Your task to perform on an android device: Find coffee shops on Maps Image 0: 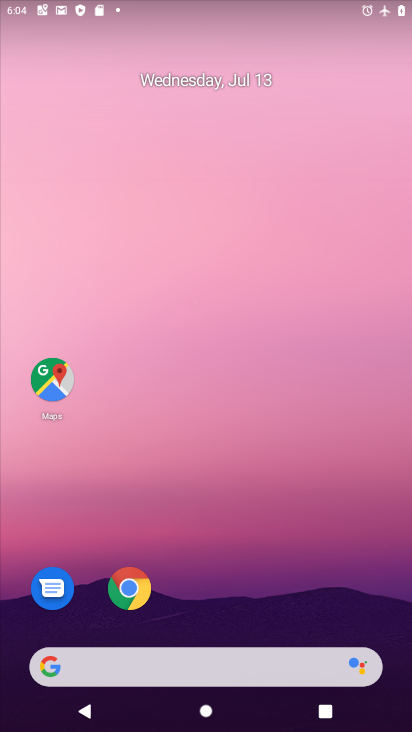
Step 0: click (51, 375)
Your task to perform on an android device: Find coffee shops on Maps Image 1: 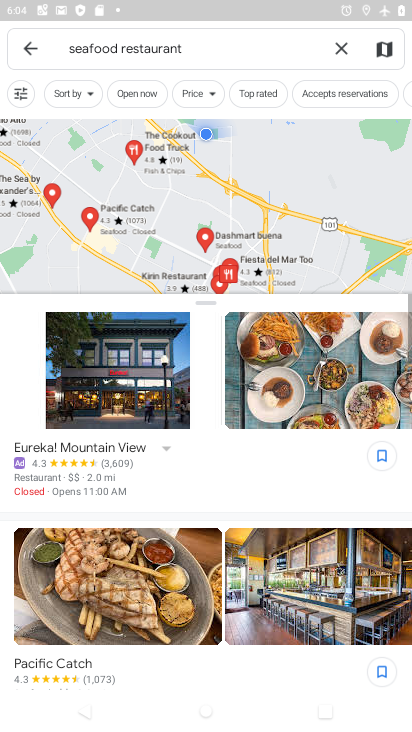
Step 1: click (343, 49)
Your task to perform on an android device: Find coffee shops on Maps Image 2: 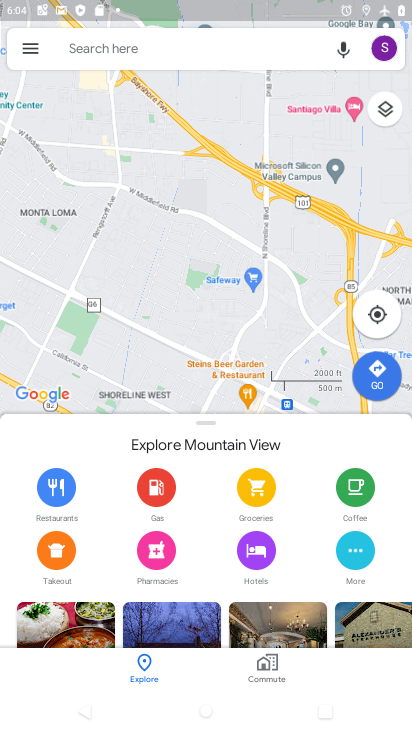
Step 2: click (174, 43)
Your task to perform on an android device: Find coffee shops on Maps Image 3: 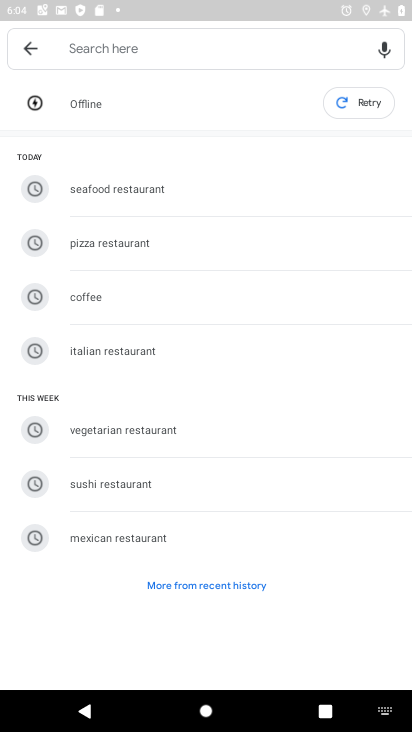
Step 3: type "coffee shops"
Your task to perform on an android device: Find coffee shops on Maps Image 4: 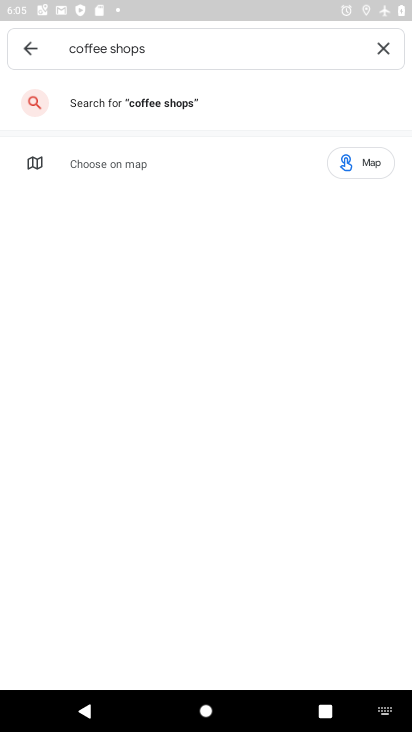
Step 4: press back button
Your task to perform on an android device: Find coffee shops on Maps Image 5: 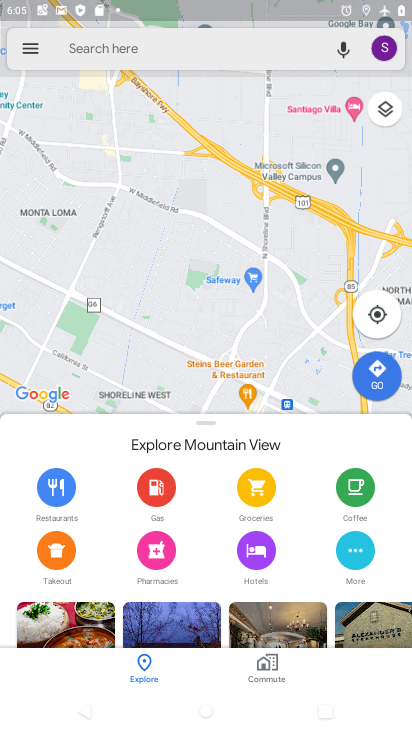
Step 5: click (204, 40)
Your task to perform on an android device: Find coffee shops on Maps Image 6: 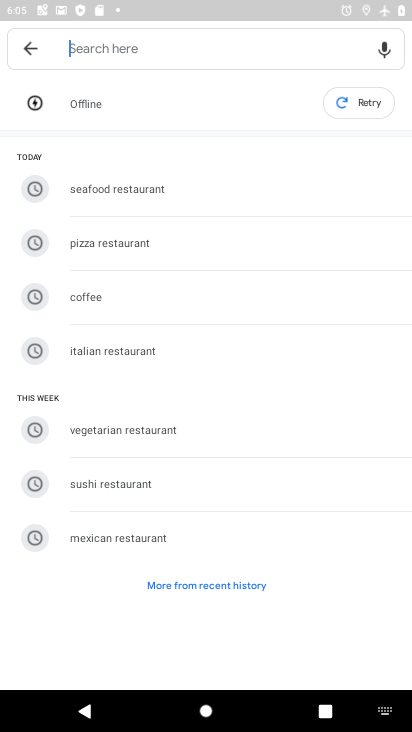
Step 6: type "coffee shops"
Your task to perform on an android device: Find coffee shops on Maps Image 7: 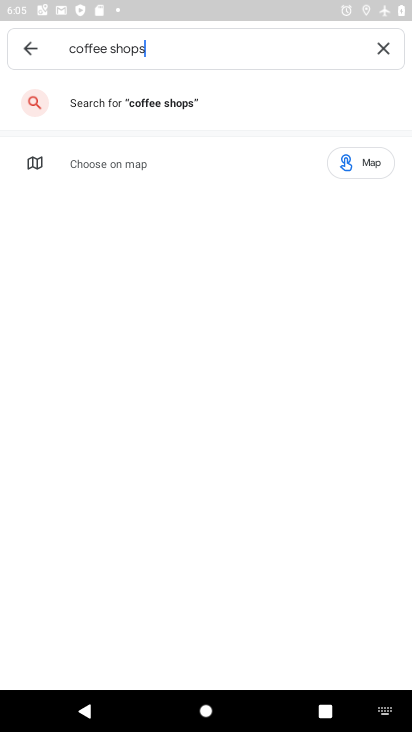
Step 7: press back button
Your task to perform on an android device: Find coffee shops on Maps Image 8: 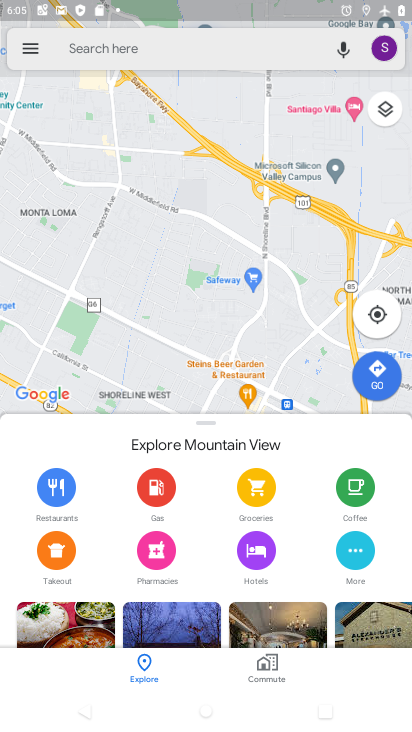
Step 8: press back button
Your task to perform on an android device: Find coffee shops on Maps Image 9: 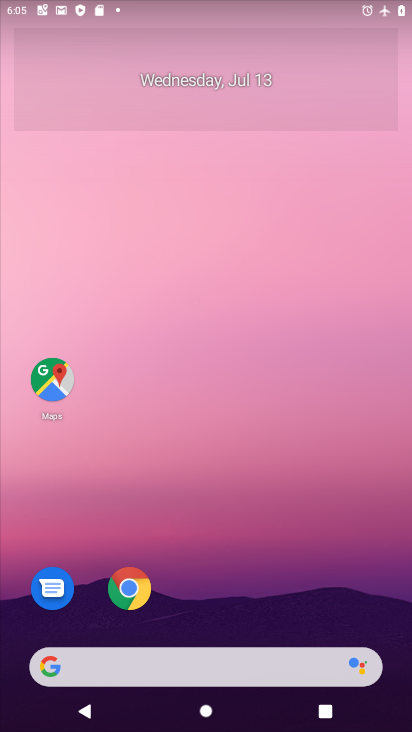
Step 9: drag from (221, 583) to (190, 69)
Your task to perform on an android device: Find coffee shops on Maps Image 10: 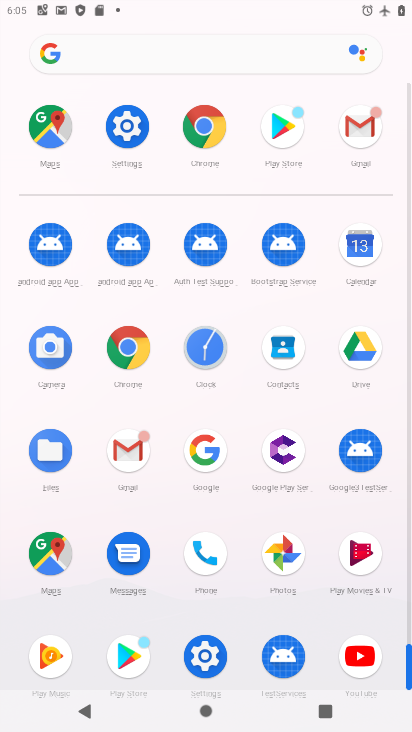
Step 10: click (122, 128)
Your task to perform on an android device: Find coffee shops on Maps Image 11: 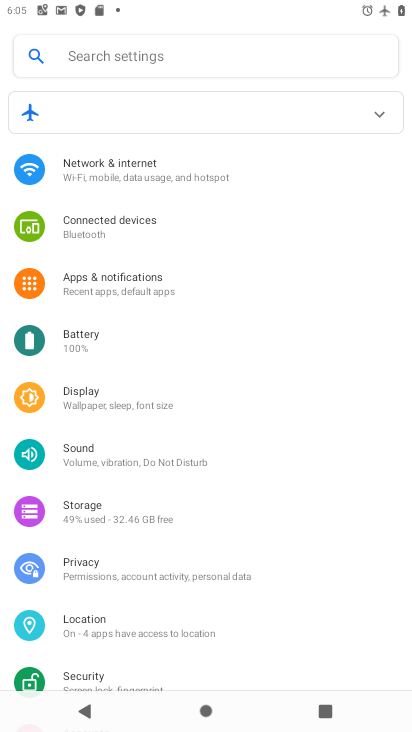
Step 11: click (383, 117)
Your task to perform on an android device: Find coffee shops on Maps Image 12: 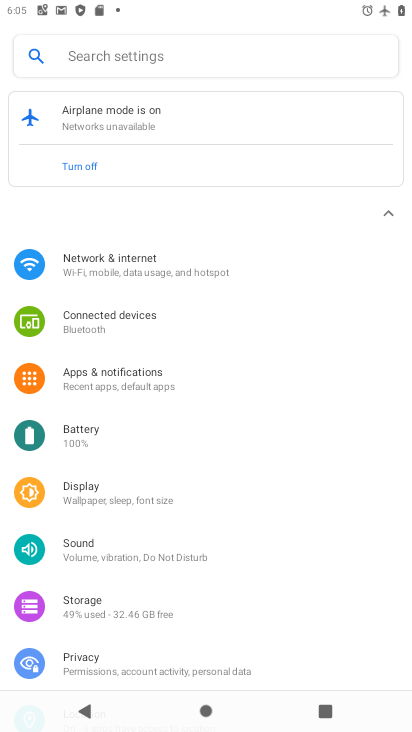
Step 12: click (95, 163)
Your task to perform on an android device: Find coffee shops on Maps Image 13: 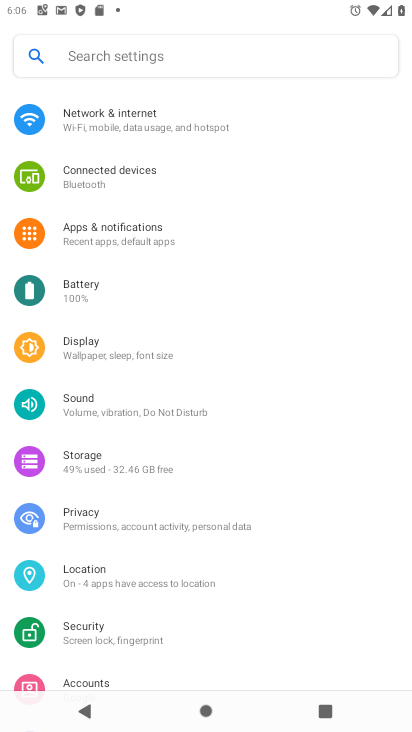
Step 13: press home button
Your task to perform on an android device: Find coffee shops on Maps Image 14: 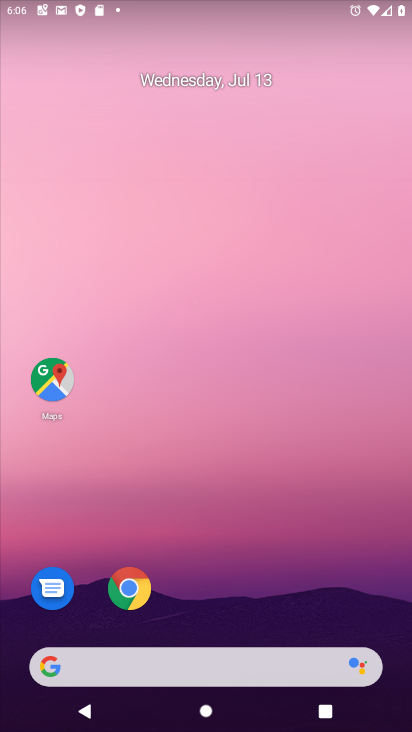
Step 14: drag from (197, 599) to (198, 152)
Your task to perform on an android device: Find coffee shops on Maps Image 15: 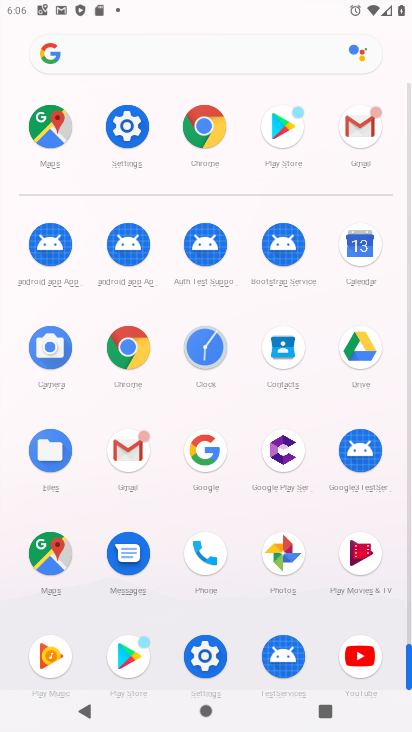
Step 15: click (51, 151)
Your task to perform on an android device: Find coffee shops on Maps Image 16: 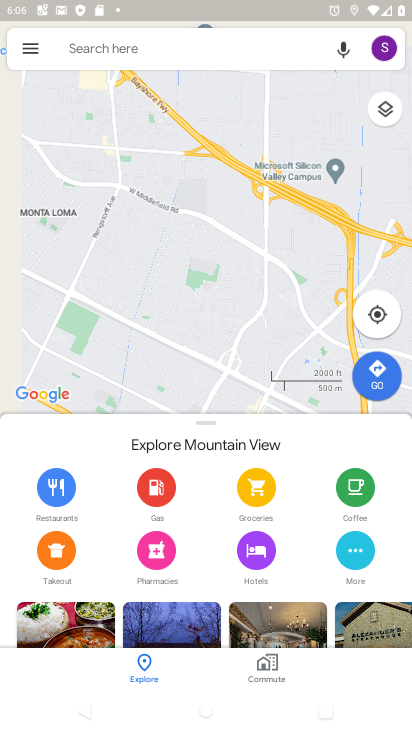
Step 16: click (139, 47)
Your task to perform on an android device: Find coffee shops on Maps Image 17: 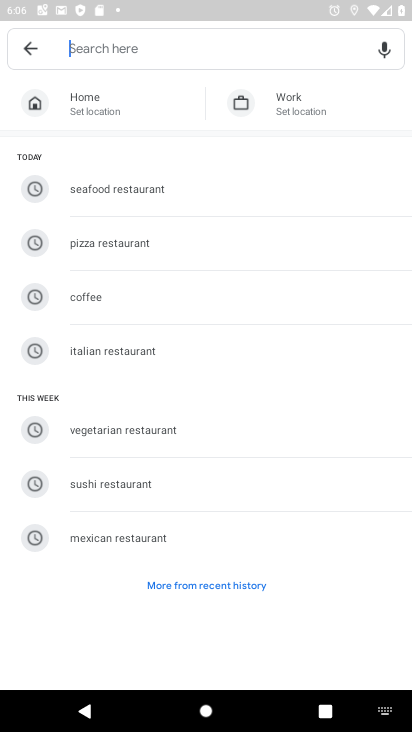
Step 17: type "coffee shops"
Your task to perform on an android device: Find coffee shops on Maps Image 18: 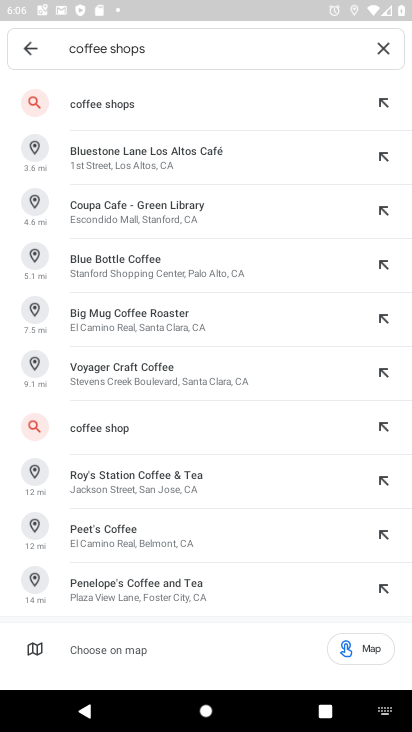
Step 18: click (104, 111)
Your task to perform on an android device: Find coffee shops on Maps Image 19: 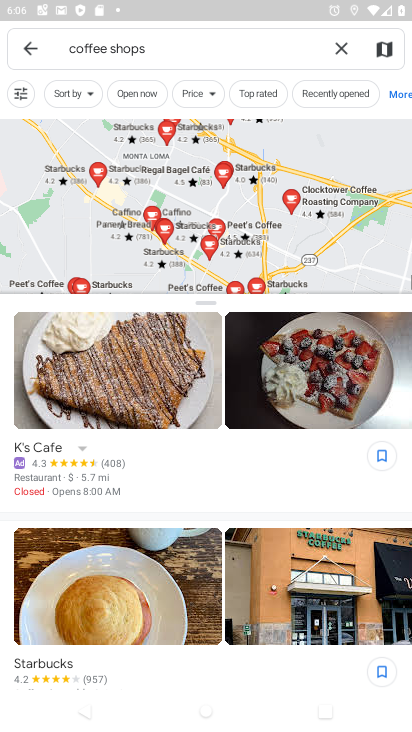
Step 19: task complete